Your task to perform on an android device: turn on wifi Image 0: 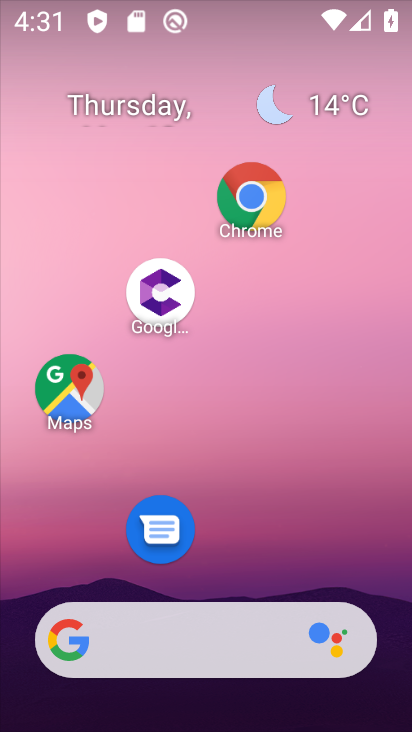
Step 0: drag from (236, 575) to (276, 125)
Your task to perform on an android device: turn on wifi Image 1: 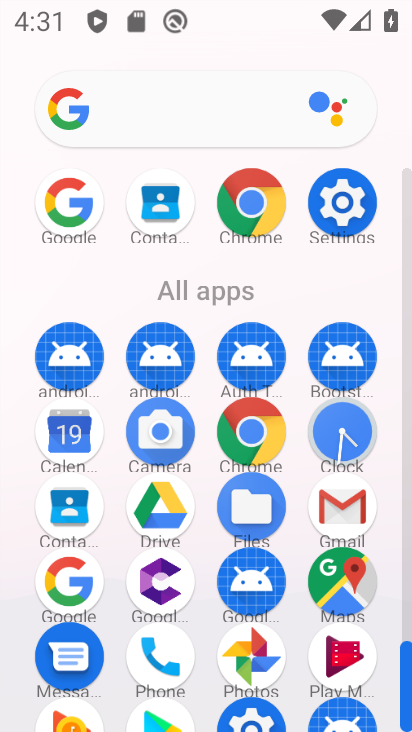
Step 1: task complete